Your task to perform on an android device: Open calendar and show me the third week of next month Image 0: 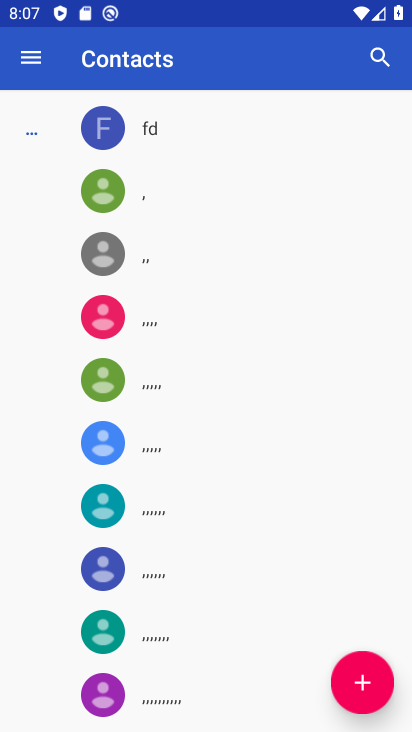
Step 0: press home button
Your task to perform on an android device: Open calendar and show me the third week of next month Image 1: 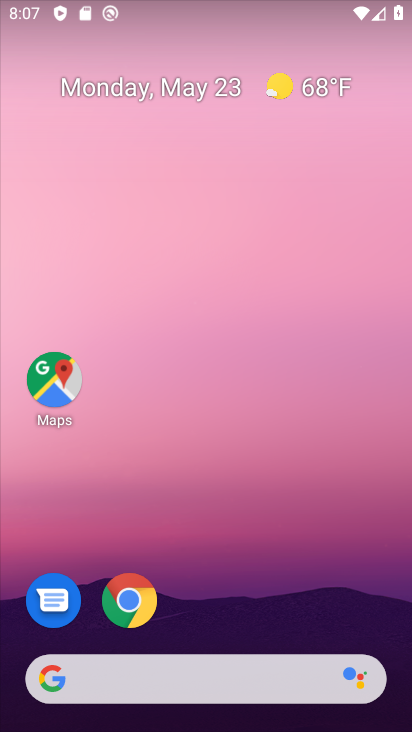
Step 1: drag from (73, 402) to (229, 135)
Your task to perform on an android device: Open calendar and show me the third week of next month Image 2: 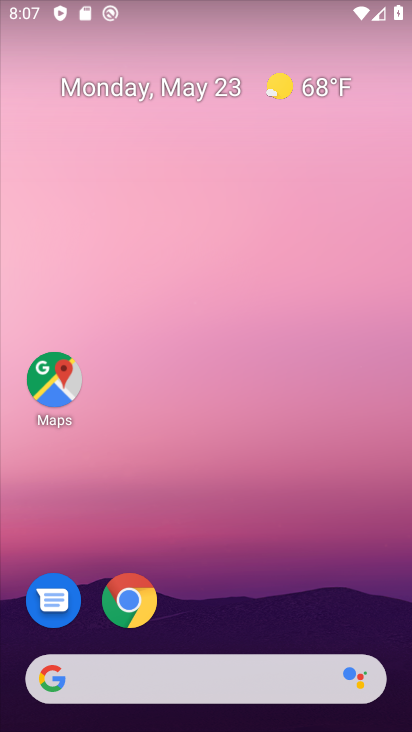
Step 2: drag from (7, 538) to (258, 183)
Your task to perform on an android device: Open calendar and show me the third week of next month Image 3: 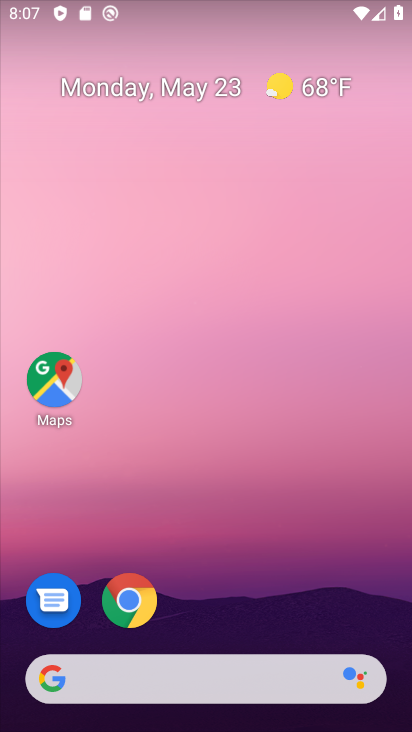
Step 3: press home button
Your task to perform on an android device: Open calendar and show me the third week of next month Image 4: 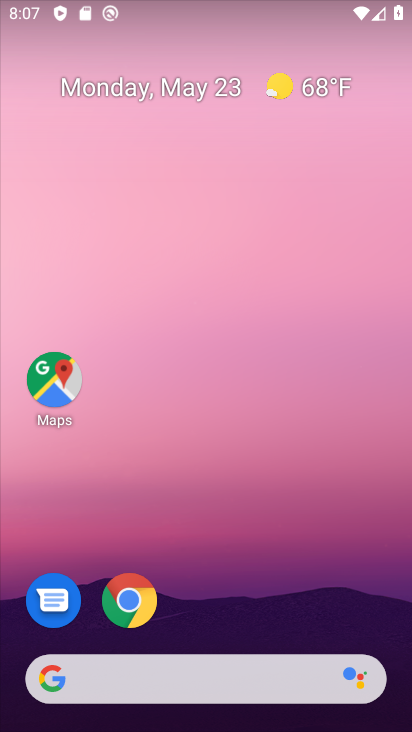
Step 4: drag from (80, 553) to (305, 191)
Your task to perform on an android device: Open calendar and show me the third week of next month Image 5: 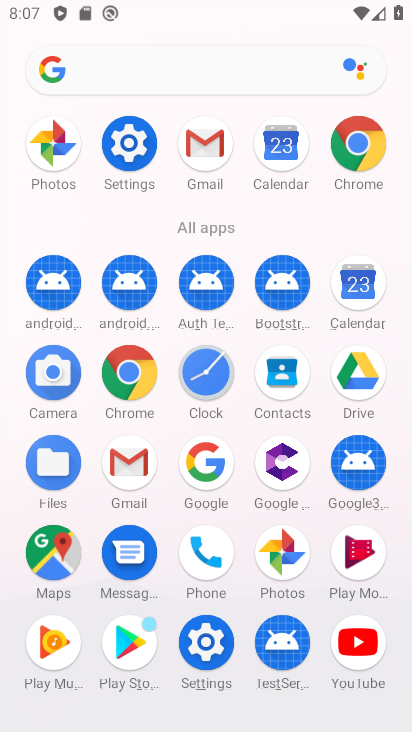
Step 5: click (355, 287)
Your task to perform on an android device: Open calendar and show me the third week of next month Image 6: 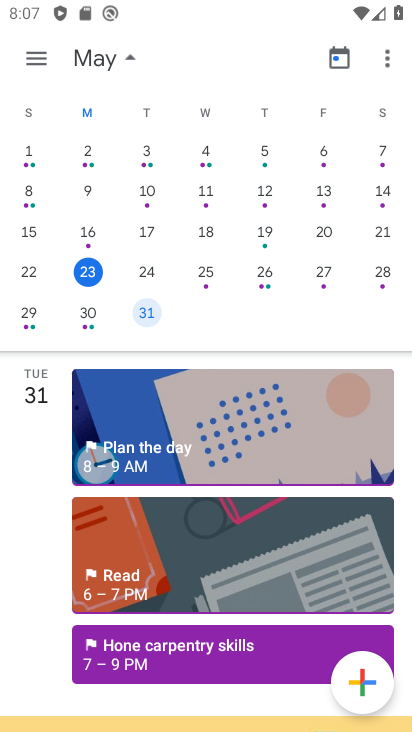
Step 6: drag from (392, 198) to (15, 182)
Your task to perform on an android device: Open calendar and show me the third week of next month Image 7: 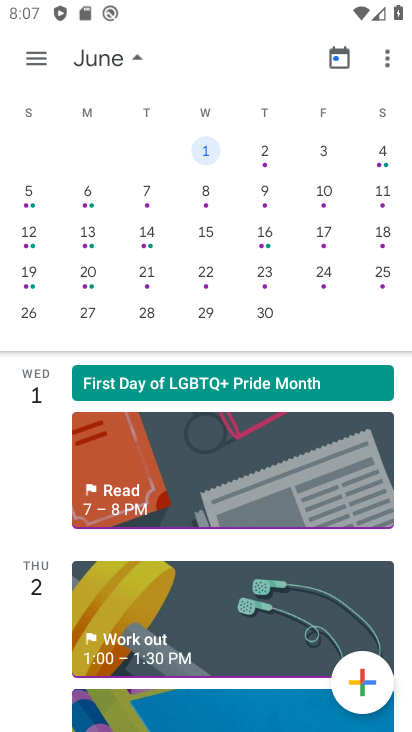
Step 7: click (216, 194)
Your task to perform on an android device: Open calendar and show me the third week of next month Image 8: 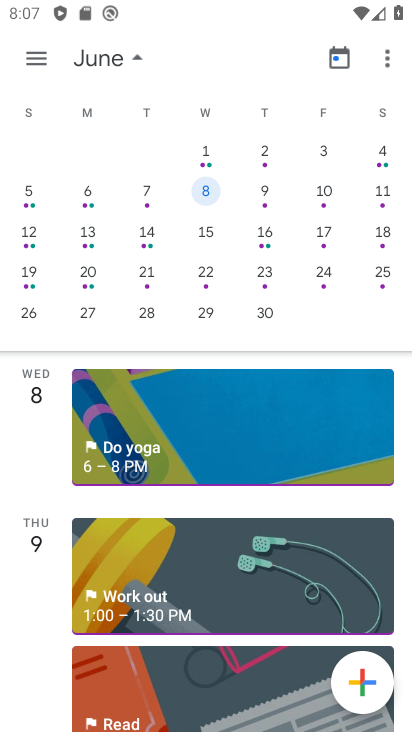
Step 8: click (196, 249)
Your task to perform on an android device: Open calendar and show me the third week of next month Image 9: 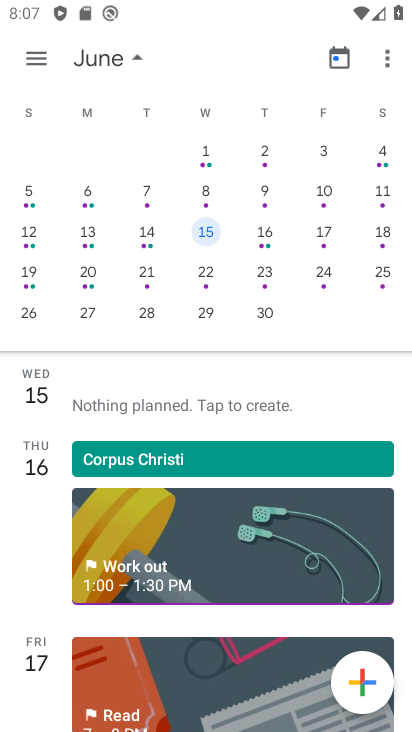
Step 9: click (75, 248)
Your task to perform on an android device: Open calendar and show me the third week of next month Image 10: 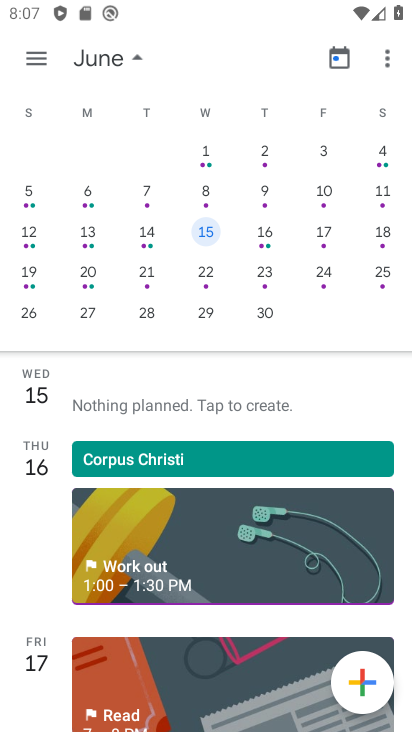
Step 10: click (141, 224)
Your task to perform on an android device: Open calendar and show me the third week of next month Image 11: 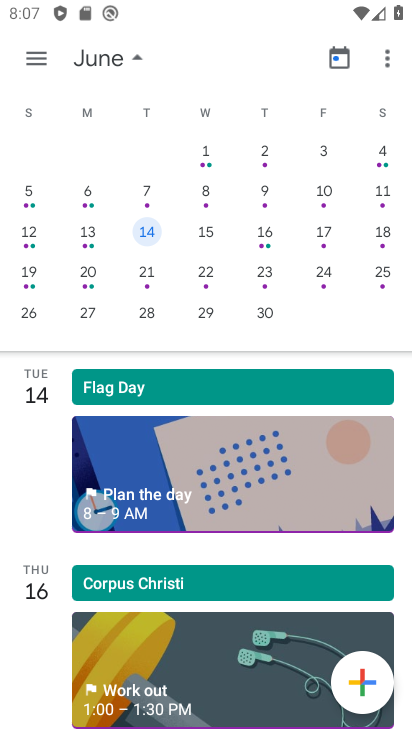
Step 11: click (91, 235)
Your task to perform on an android device: Open calendar and show me the third week of next month Image 12: 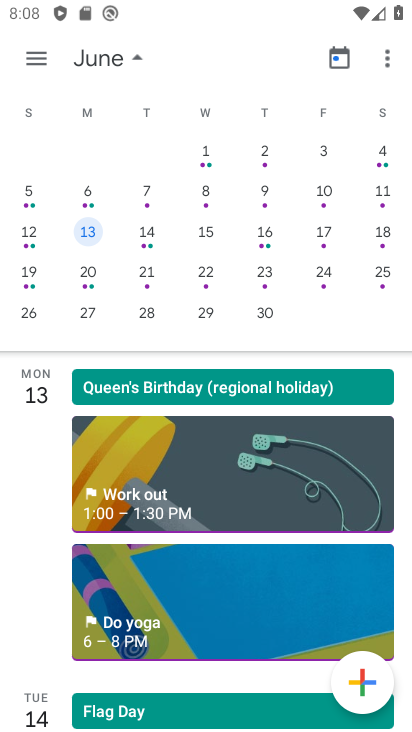
Step 12: task complete